Your task to perform on an android device: Play the new Katy Perry video on YouTube Image 0: 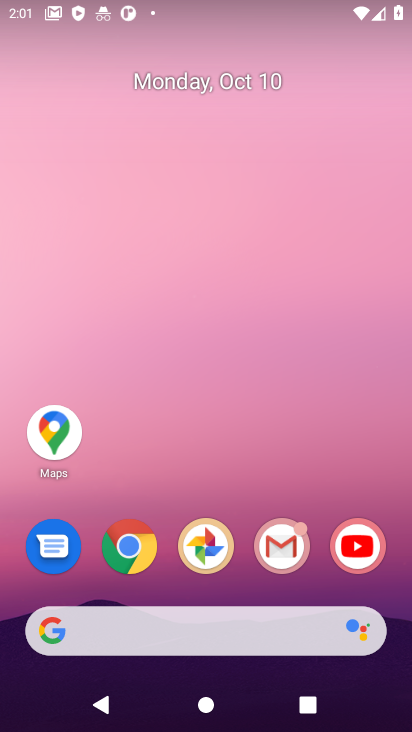
Step 0: click (368, 529)
Your task to perform on an android device: Play the new Katy Perry video on YouTube Image 1: 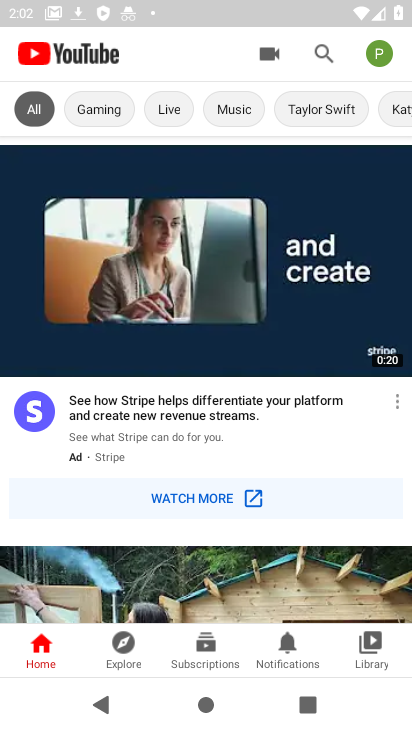
Step 1: click (319, 54)
Your task to perform on an android device: Play the new Katy Perry video on YouTube Image 2: 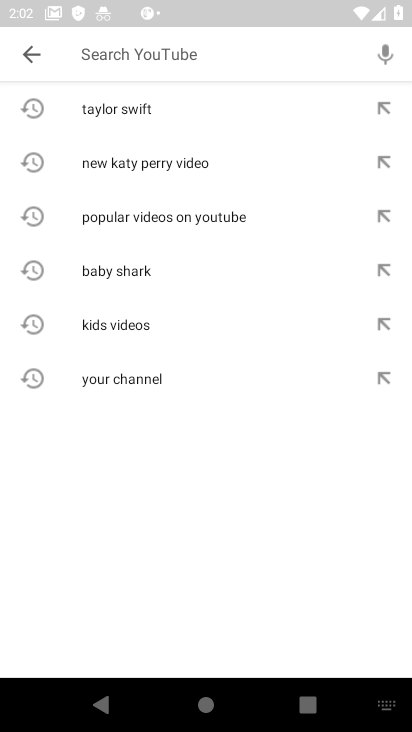
Step 2: type " new Katy Perry video "
Your task to perform on an android device: Play the new Katy Perry video on YouTube Image 3: 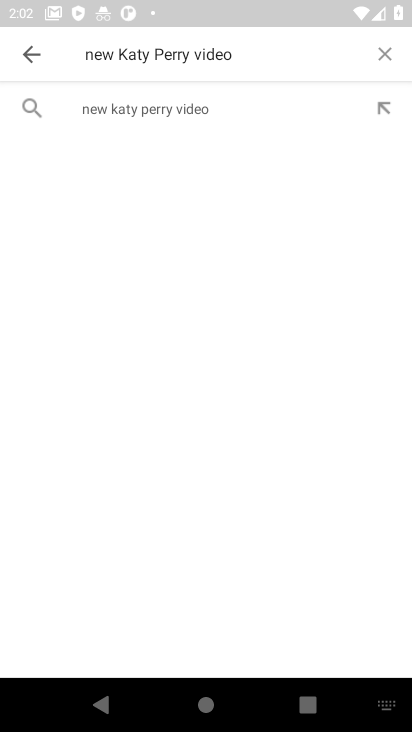
Step 3: click (314, 121)
Your task to perform on an android device: Play the new Katy Perry video on YouTube Image 4: 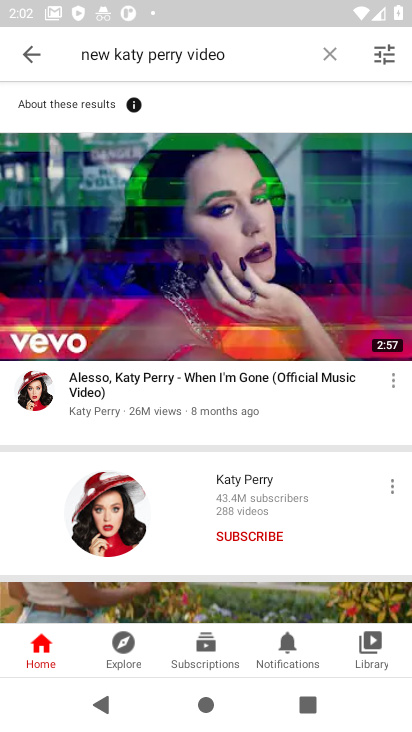
Step 4: click (275, 203)
Your task to perform on an android device: Play the new Katy Perry video on YouTube Image 5: 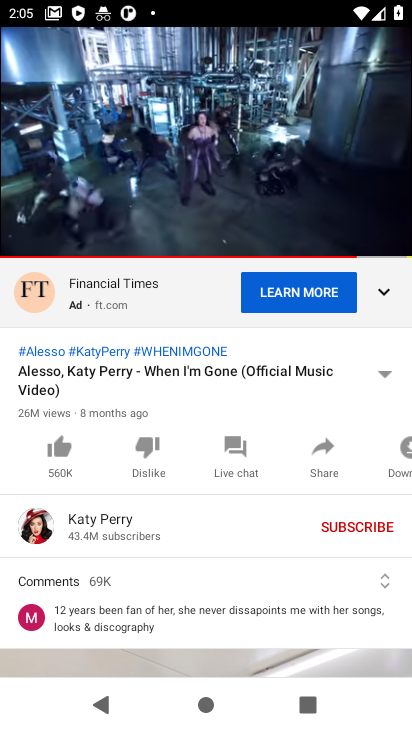
Step 5: task complete